Your task to perform on an android device: Open eBay Image 0: 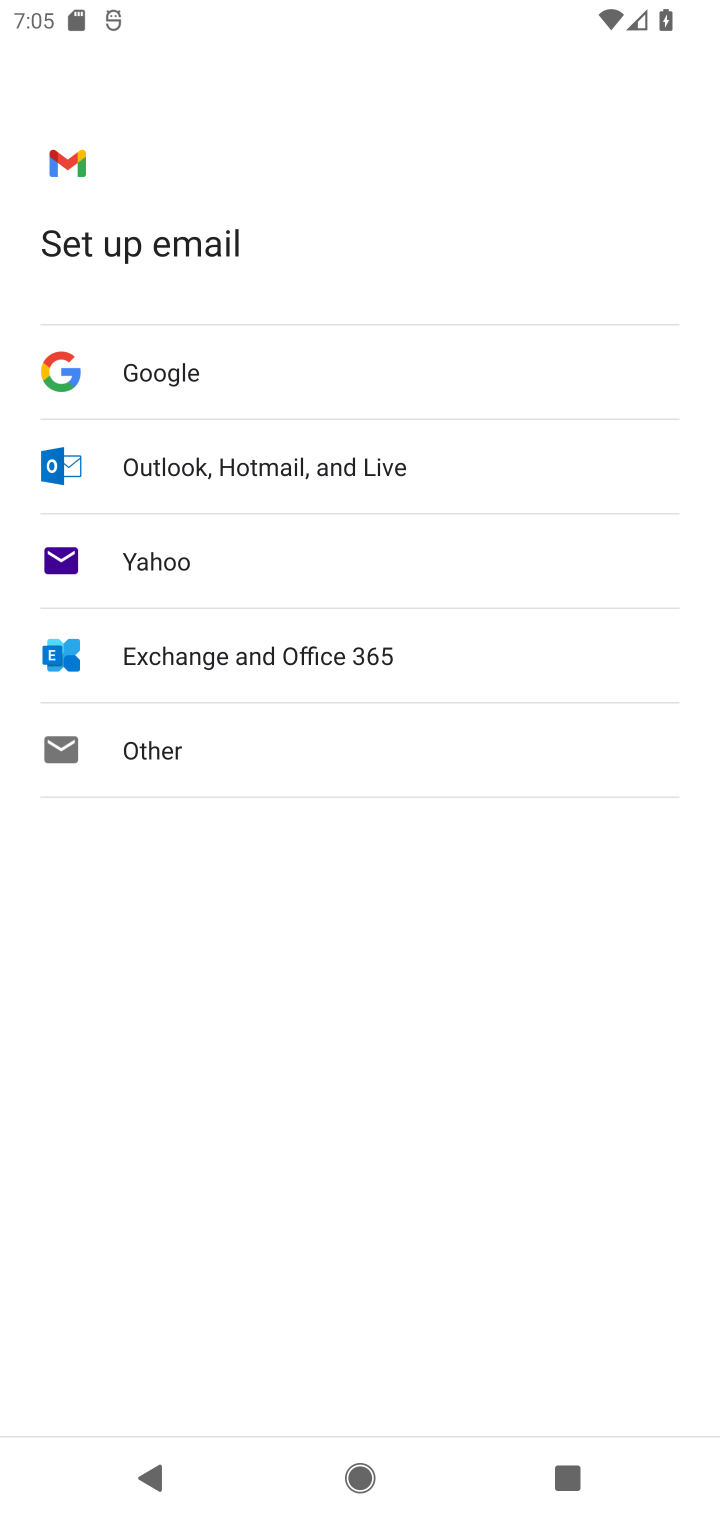
Step 0: press home button
Your task to perform on an android device: Open eBay Image 1: 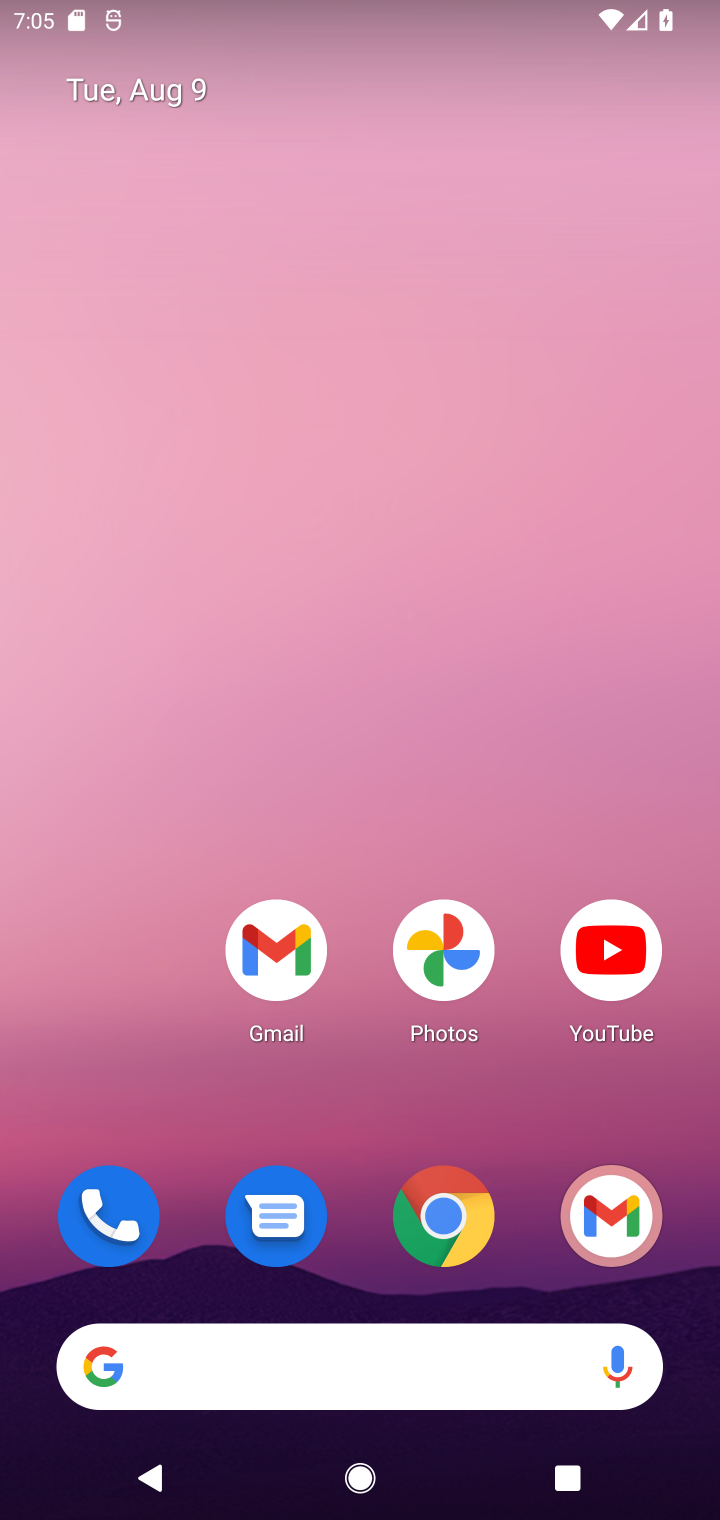
Step 1: click (457, 1215)
Your task to perform on an android device: Open eBay Image 2: 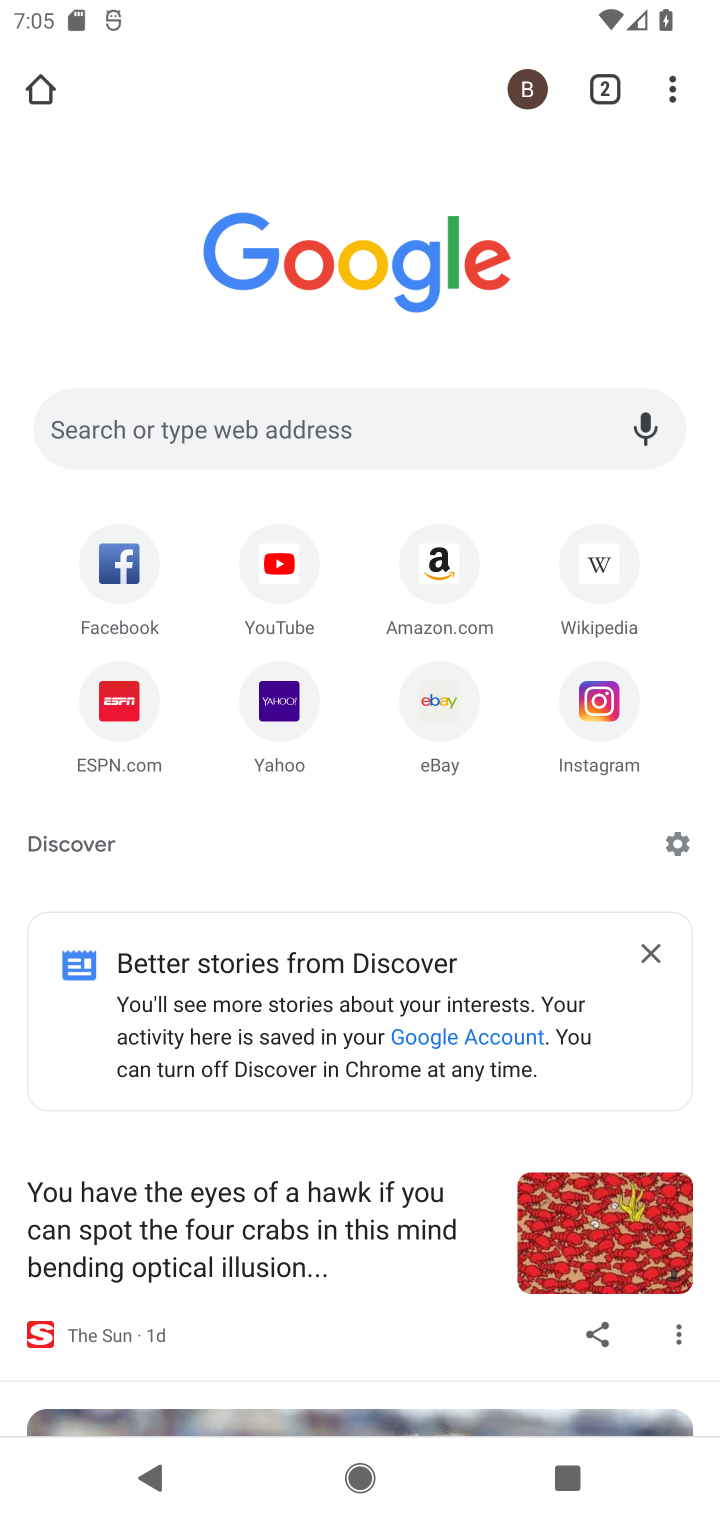
Step 2: click (446, 699)
Your task to perform on an android device: Open eBay Image 3: 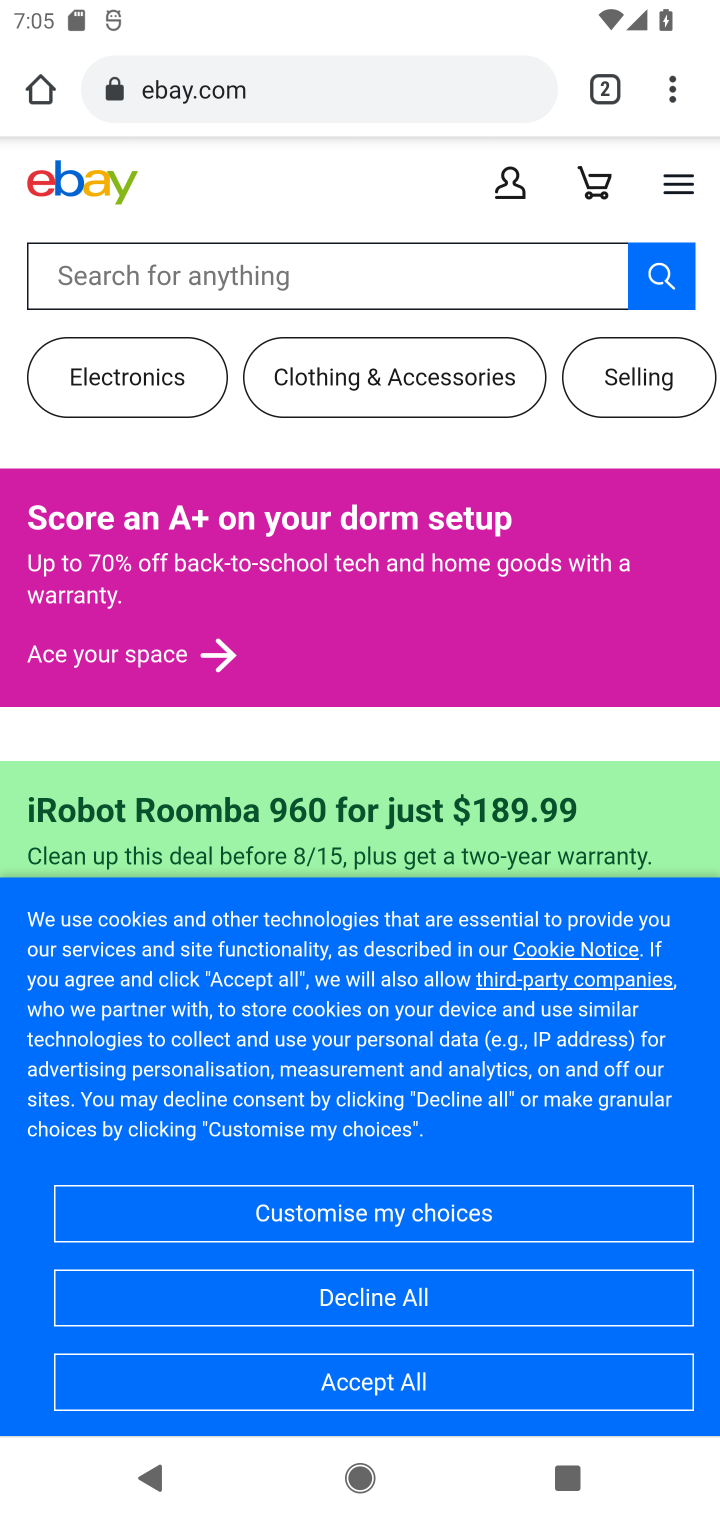
Step 3: task complete